Your task to perform on an android device: Show me the alarms in the clock app Image 0: 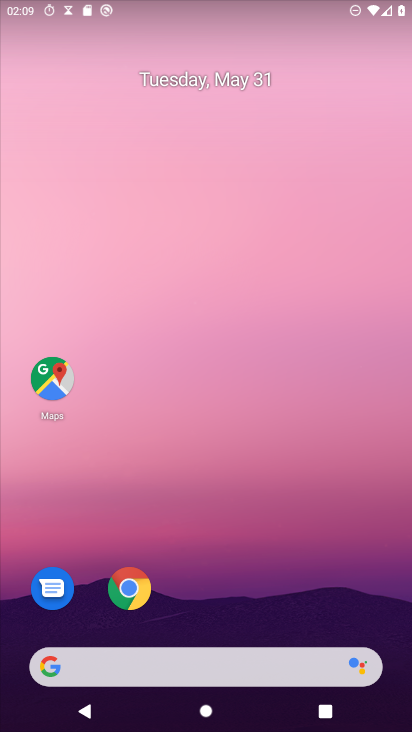
Step 0: drag from (254, 518) to (289, 2)
Your task to perform on an android device: Show me the alarms in the clock app Image 1: 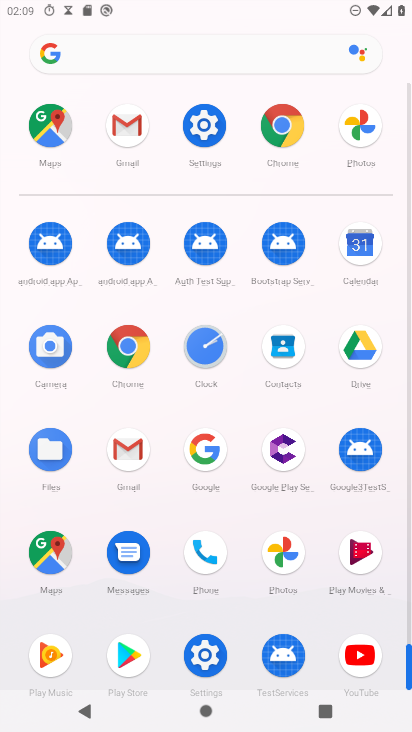
Step 1: click (209, 366)
Your task to perform on an android device: Show me the alarms in the clock app Image 2: 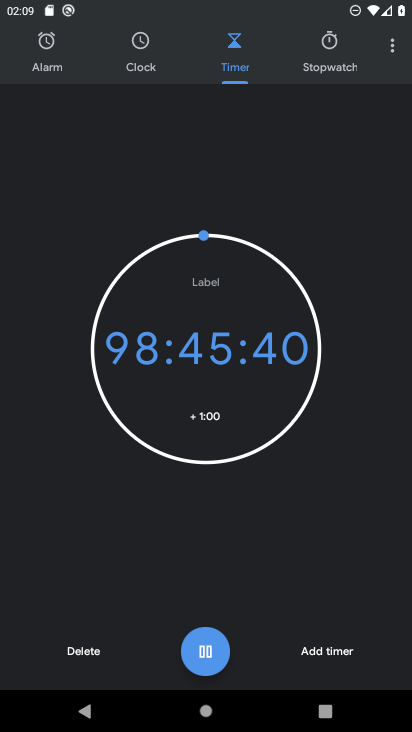
Step 2: click (43, 42)
Your task to perform on an android device: Show me the alarms in the clock app Image 3: 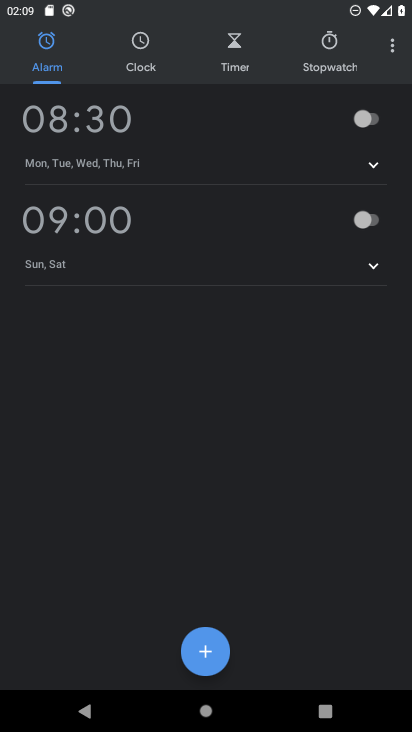
Step 3: click (375, 112)
Your task to perform on an android device: Show me the alarms in the clock app Image 4: 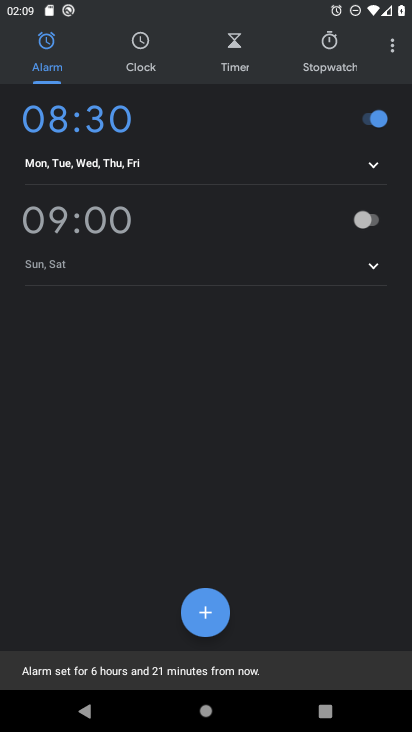
Step 4: task complete